Your task to perform on an android device: Open Google Chrome Image 0: 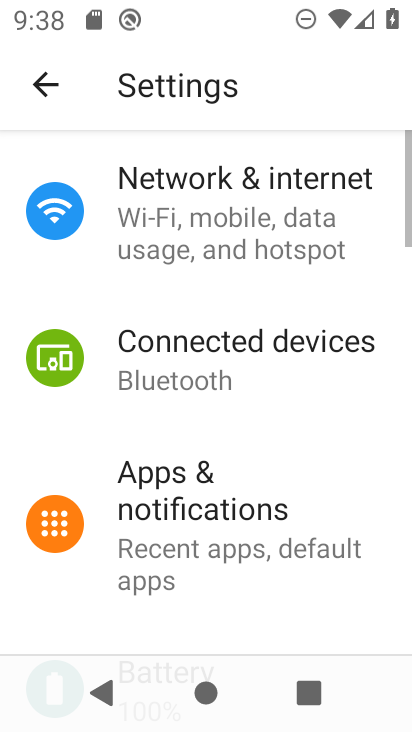
Step 0: click (211, 701)
Your task to perform on an android device: Open Google Chrome Image 1: 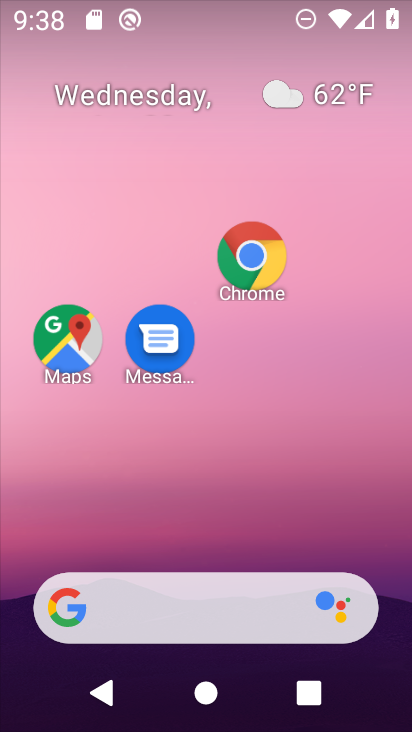
Step 1: click (253, 254)
Your task to perform on an android device: Open Google Chrome Image 2: 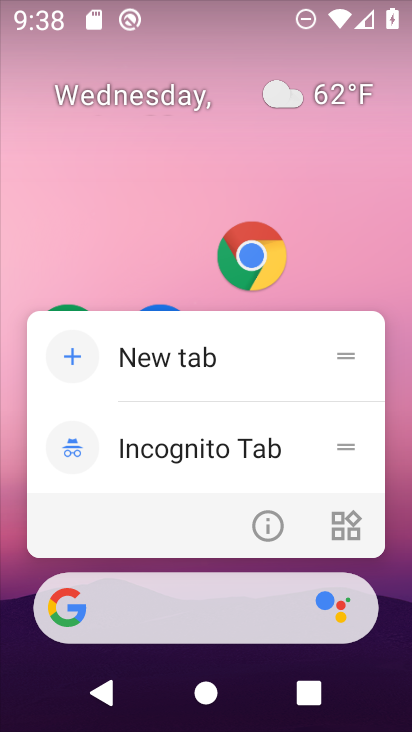
Step 2: click (246, 254)
Your task to perform on an android device: Open Google Chrome Image 3: 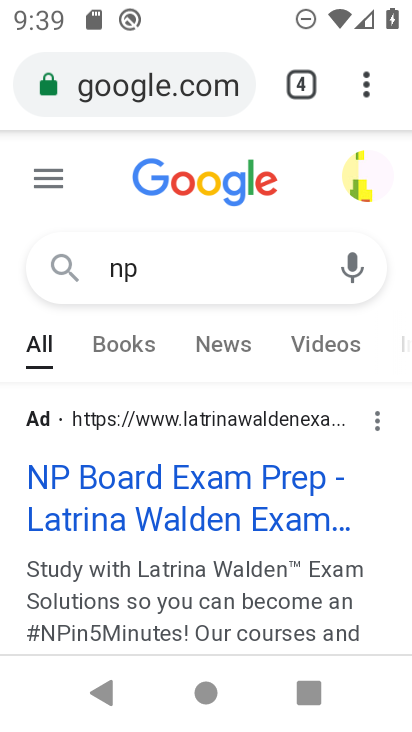
Step 3: task complete